Your task to perform on an android device: Open maps Image 0: 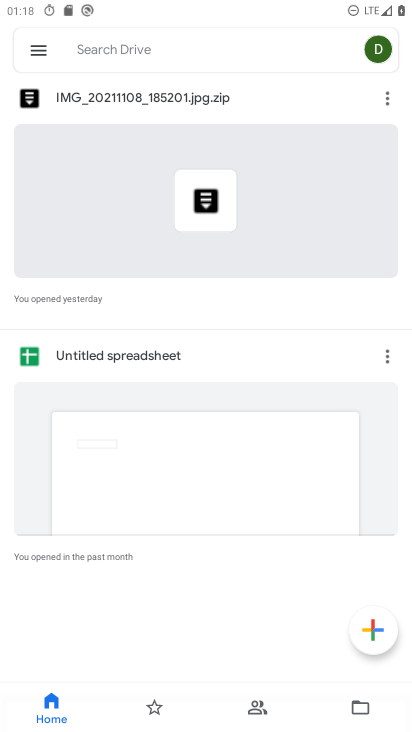
Step 0: press home button
Your task to perform on an android device: Open maps Image 1: 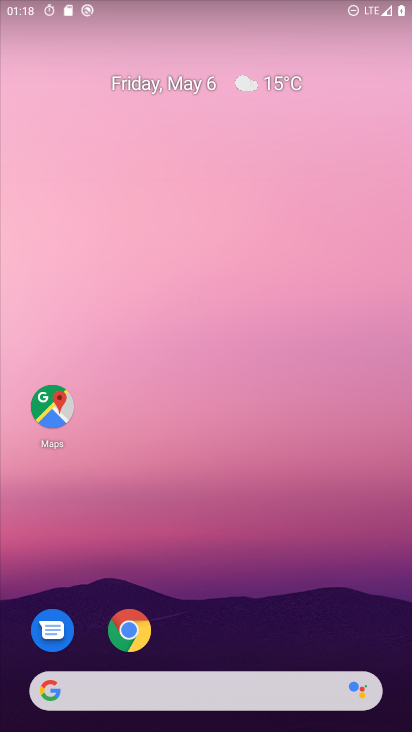
Step 1: click (134, 628)
Your task to perform on an android device: Open maps Image 2: 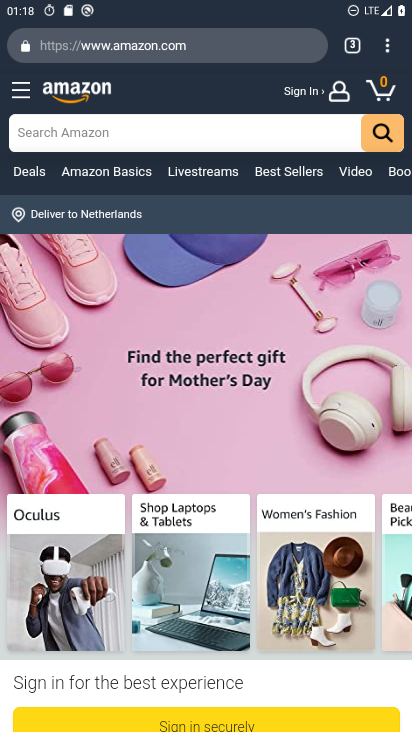
Step 2: press home button
Your task to perform on an android device: Open maps Image 3: 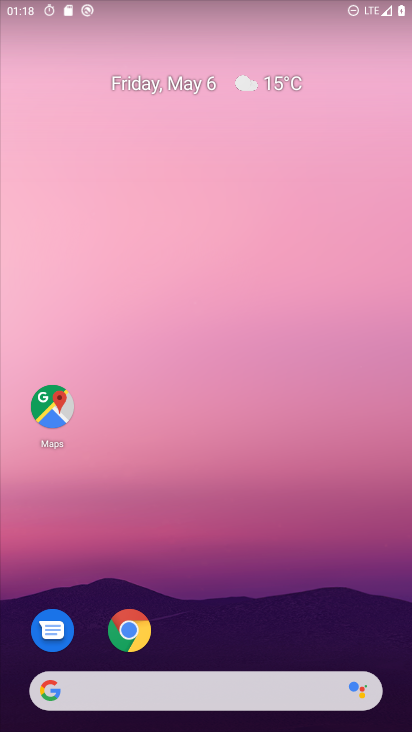
Step 3: click (47, 393)
Your task to perform on an android device: Open maps Image 4: 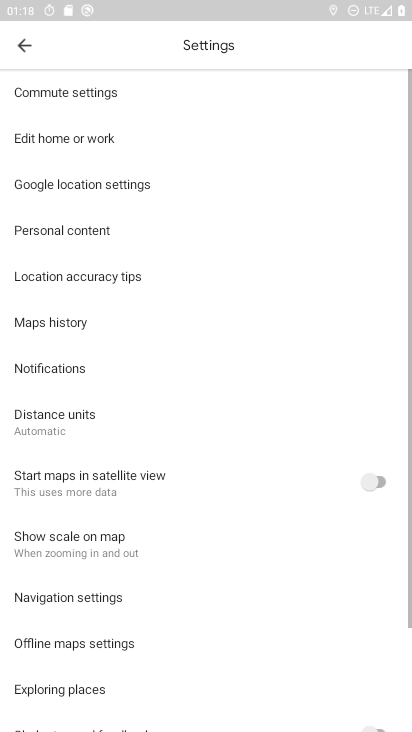
Step 4: task complete